Your task to perform on an android device: refresh tabs in the chrome app Image 0: 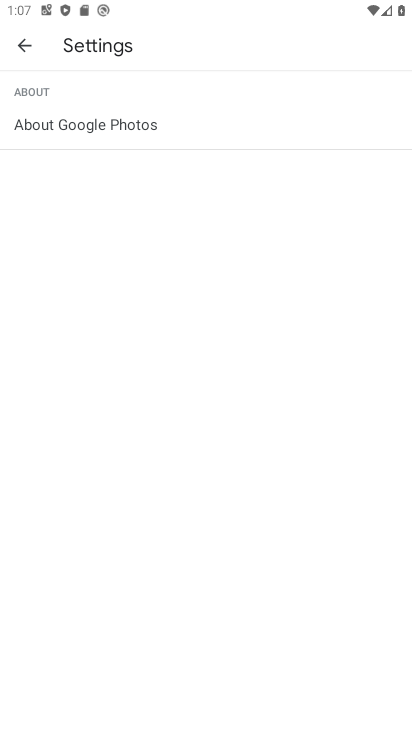
Step 0: press home button
Your task to perform on an android device: refresh tabs in the chrome app Image 1: 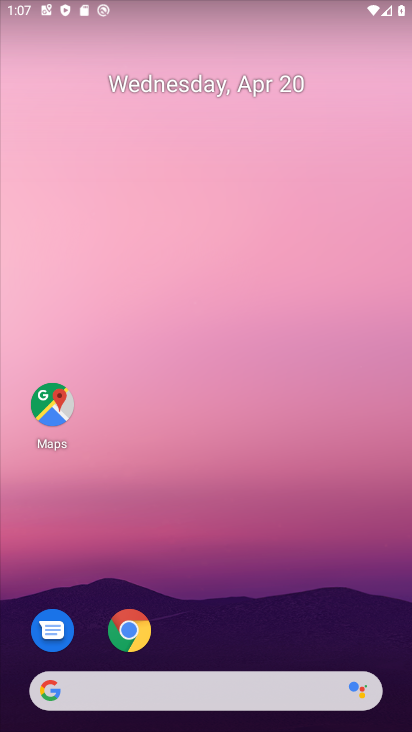
Step 1: drag from (327, 582) to (310, 174)
Your task to perform on an android device: refresh tabs in the chrome app Image 2: 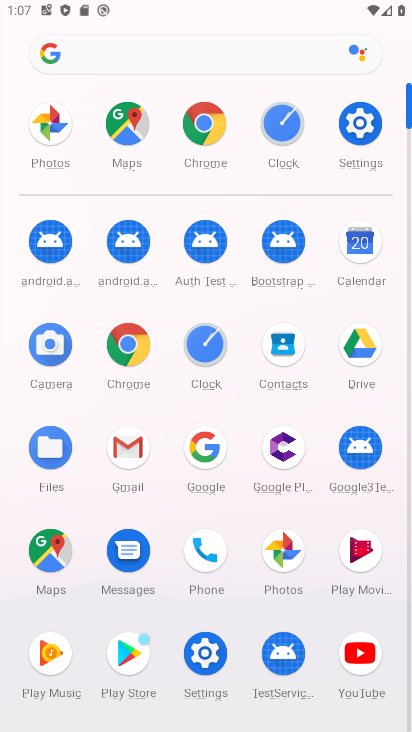
Step 2: click (203, 125)
Your task to perform on an android device: refresh tabs in the chrome app Image 3: 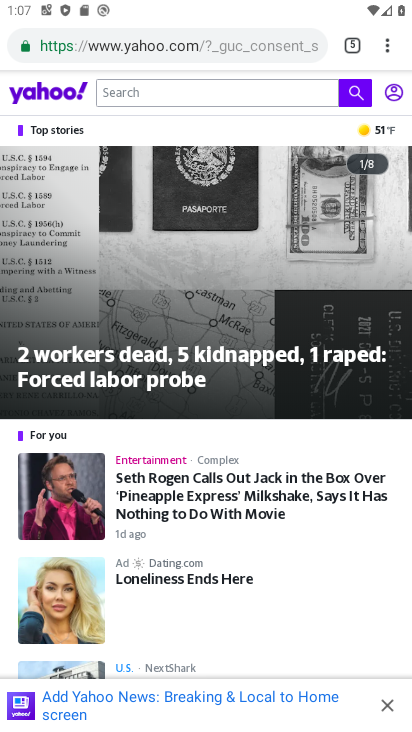
Step 3: click (386, 49)
Your task to perform on an android device: refresh tabs in the chrome app Image 4: 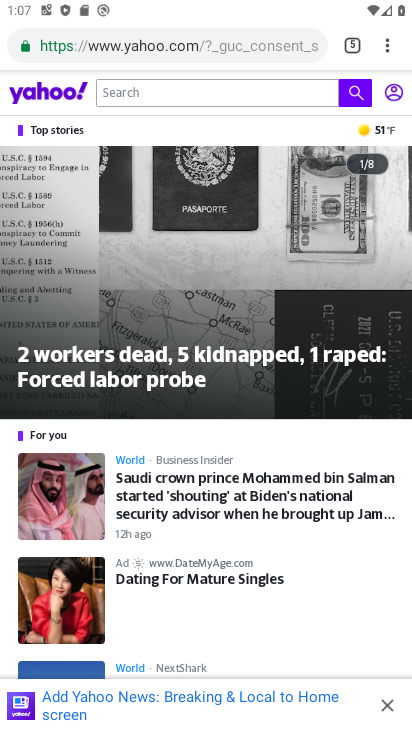
Step 4: task complete